Your task to perform on an android device: change timer sound Image 0: 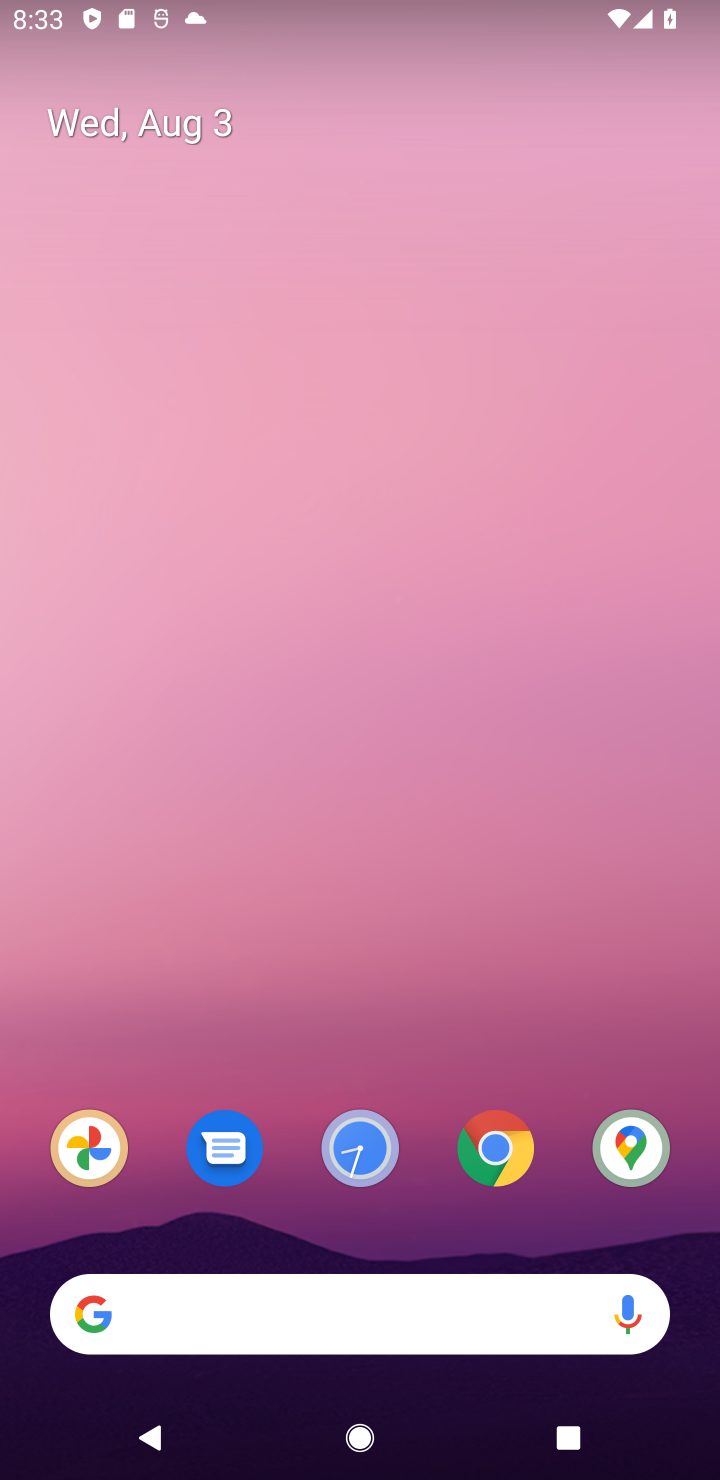
Step 0: drag from (333, 884) to (378, 50)
Your task to perform on an android device: change timer sound Image 1: 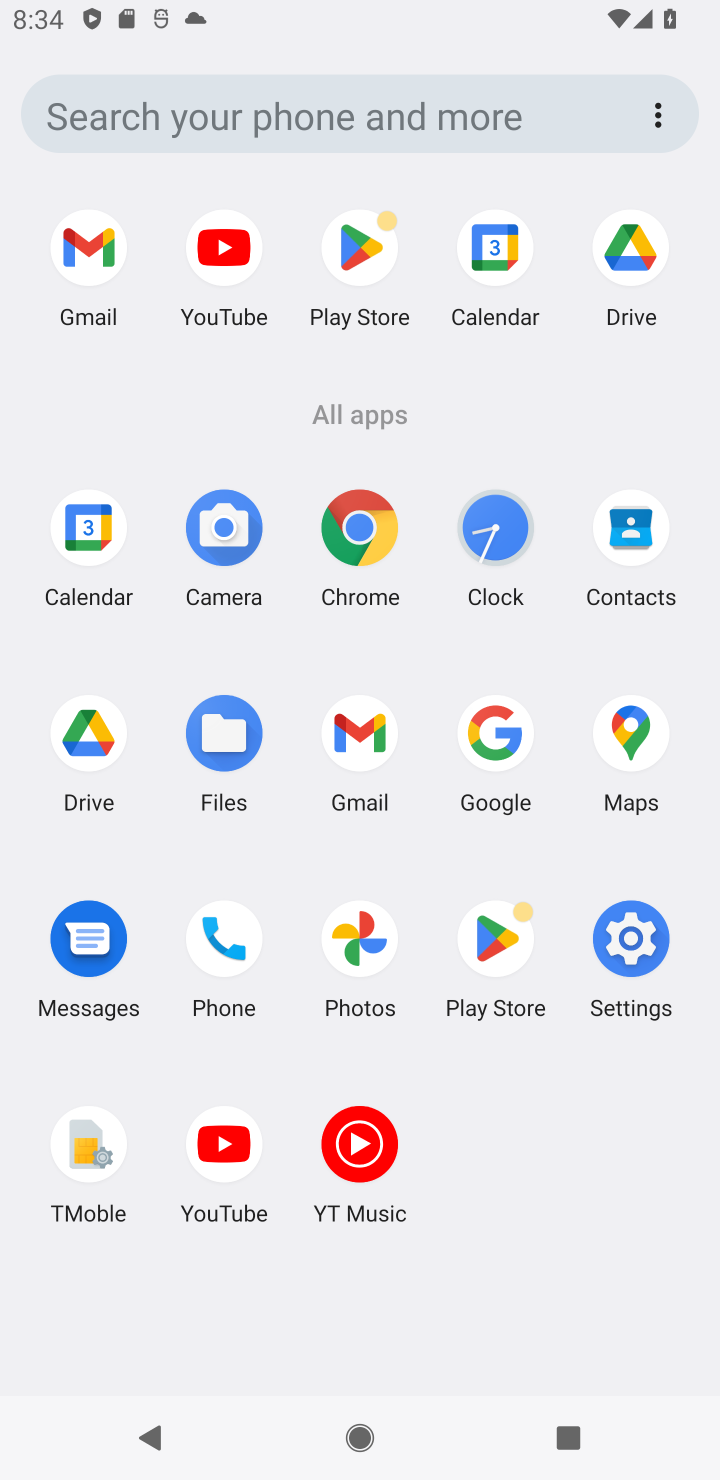
Step 1: click (627, 961)
Your task to perform on an android device: change timer sound Image 2: 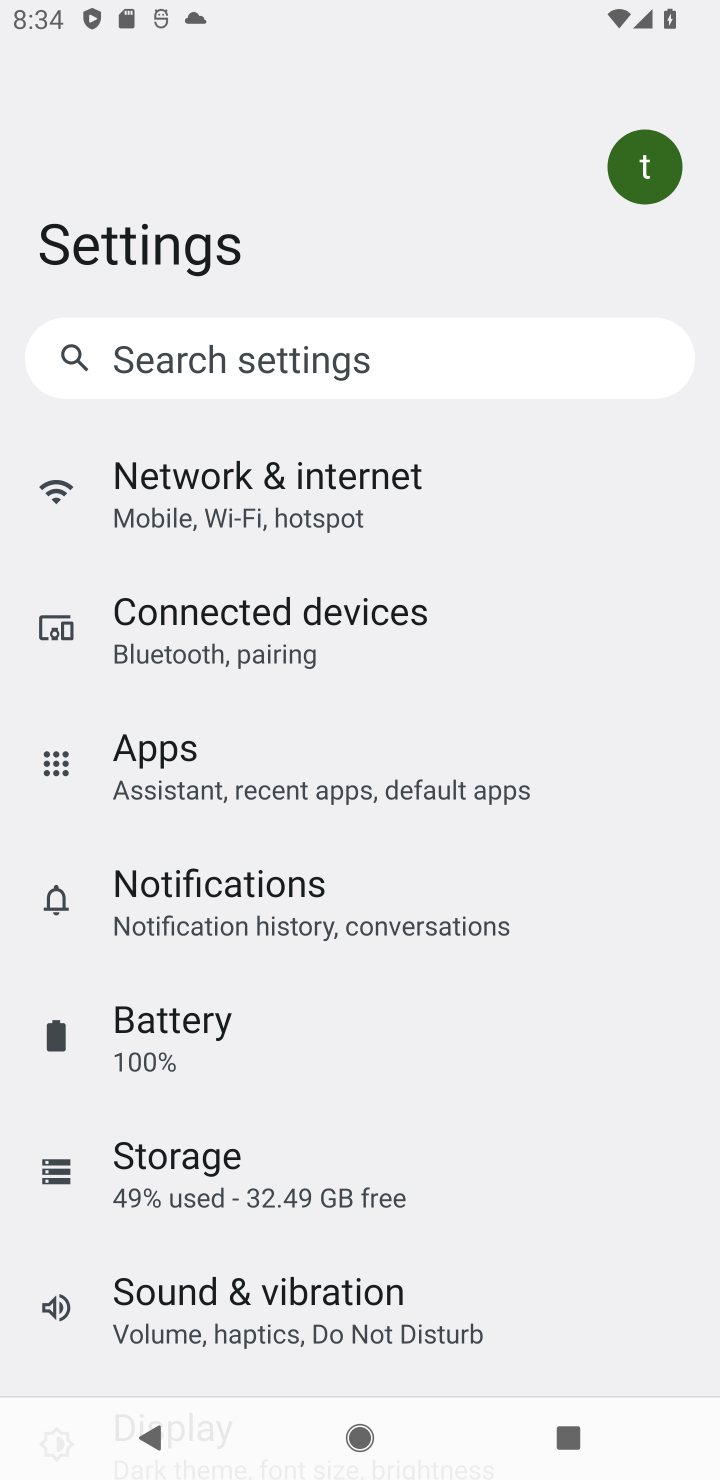
Step 2: click (209, 1297)
Your task to perform on an android device: change timer sound Image 3: 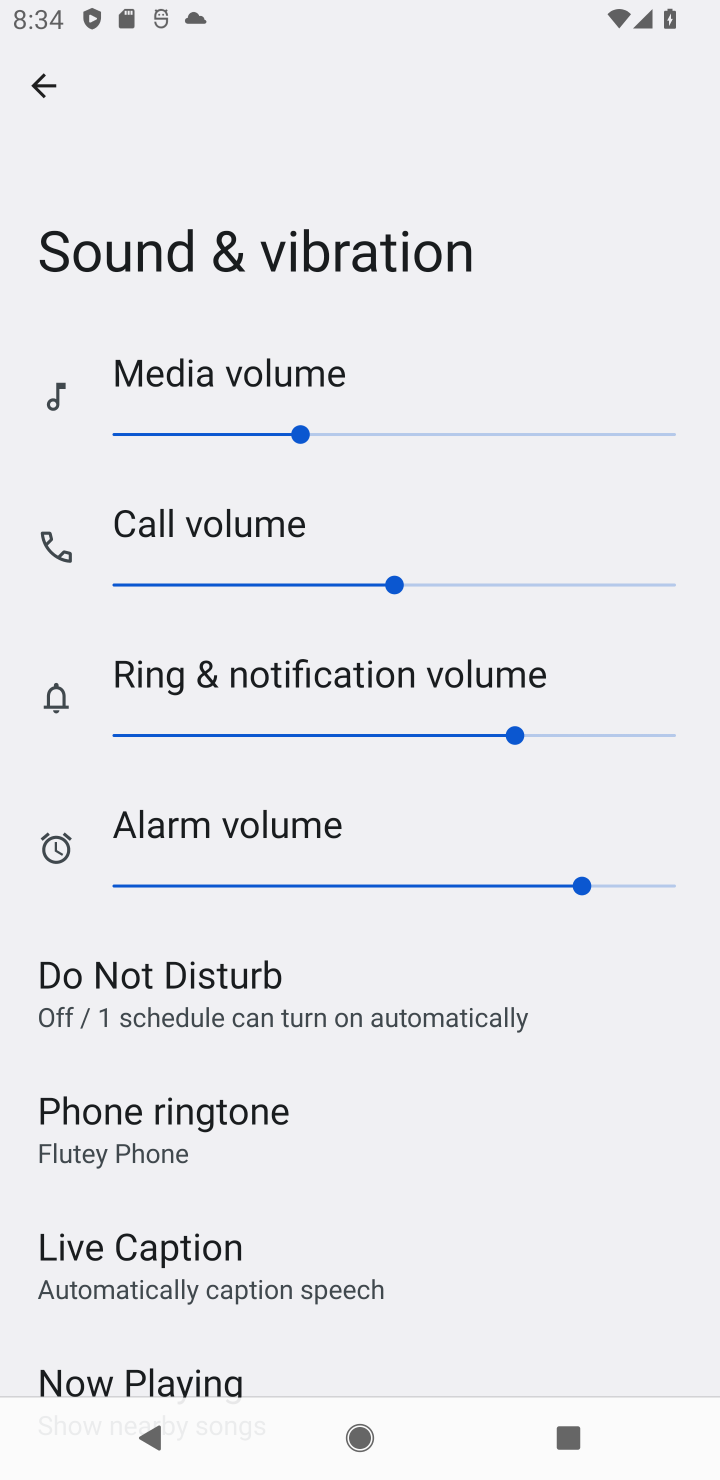
Step 3: task complete